Your task to perform on an android device: toggle show notifications on the lock screen Image 0: 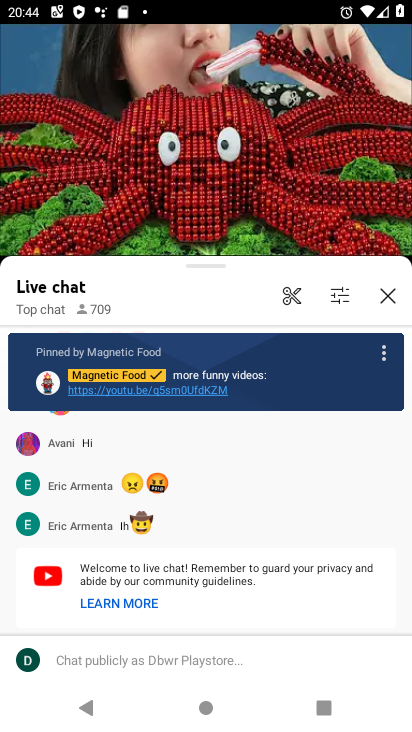
Step 0: press back button
Your task to perform on an android device: toggle show notifications on the lock screen Image 1: 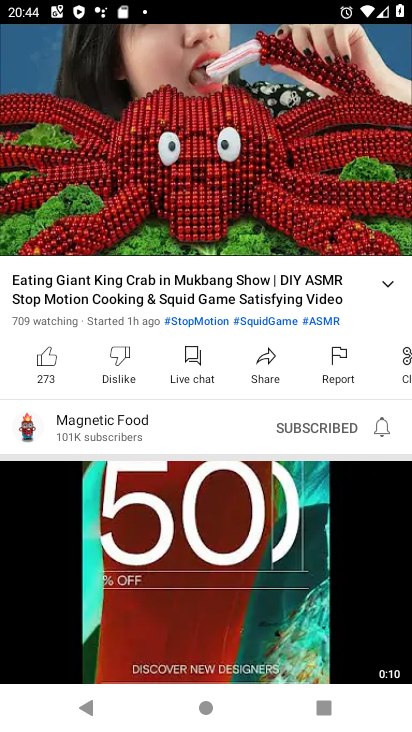
Step 1: press back button
Your task to perform on an android device: toggle show notifications on the lock screen Image 2: 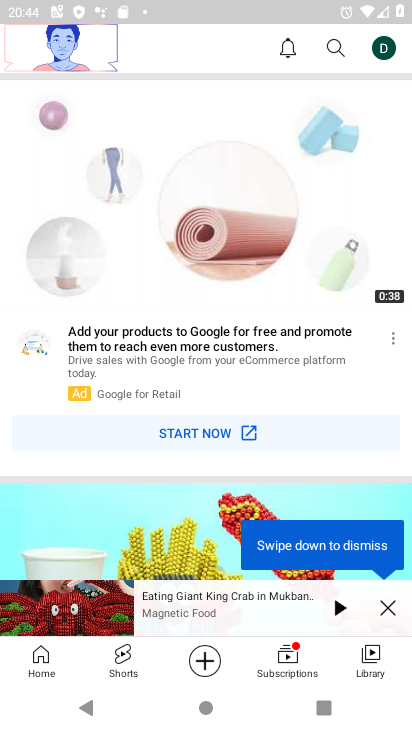
Step 2: press back button
Your task to perform on an android device: toggle show notifications on the lock screen Image 3: 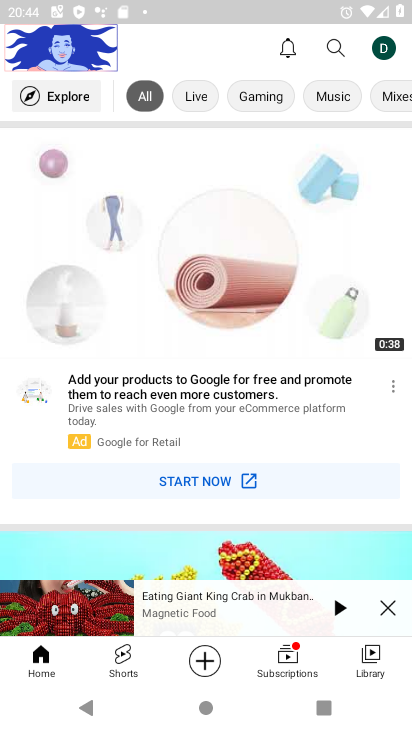
Step 3: press back button
Your task to perform on an android device: toggle show notifications on the lock screen Image 4: 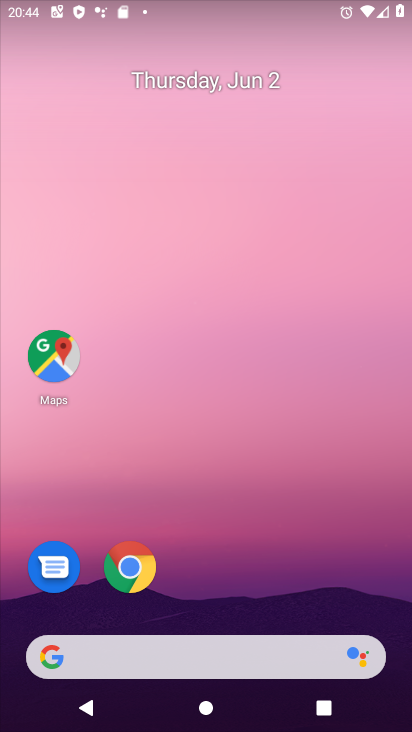
Step 4: drag from (276, 566) to (223, 112)
Your task to perform on an android device: toggle show notifications on the lock screen Image 5: 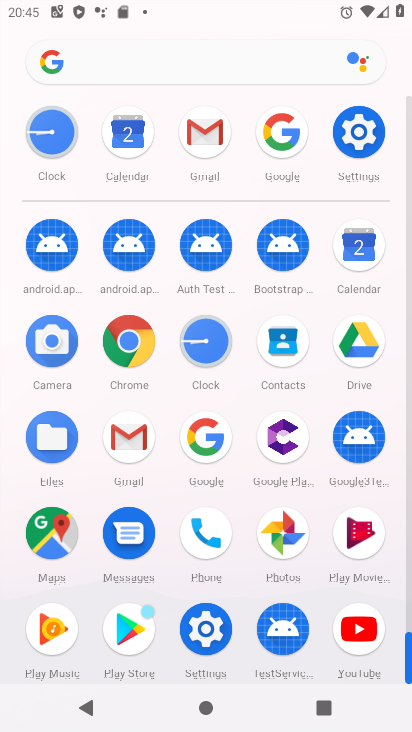
Step 5: click (356, 131)
Your task to perform on an android device: toggle show notifications on the lock screen Image 6: 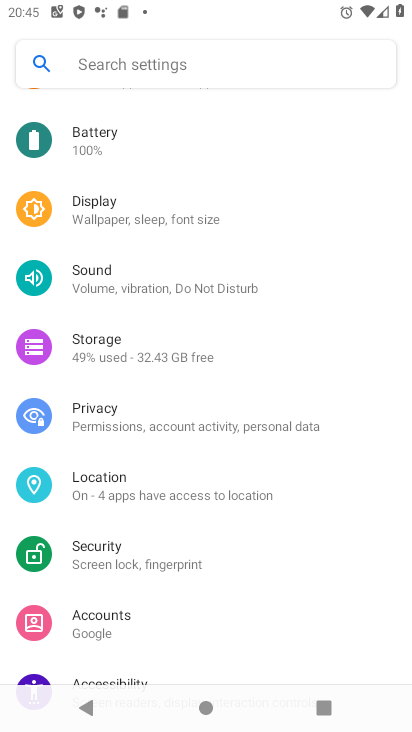
Step 6: drag from (204, 202) to (186, 267)
Your task to perform on an android device: toggle show notifications on the lock screen Image 7: 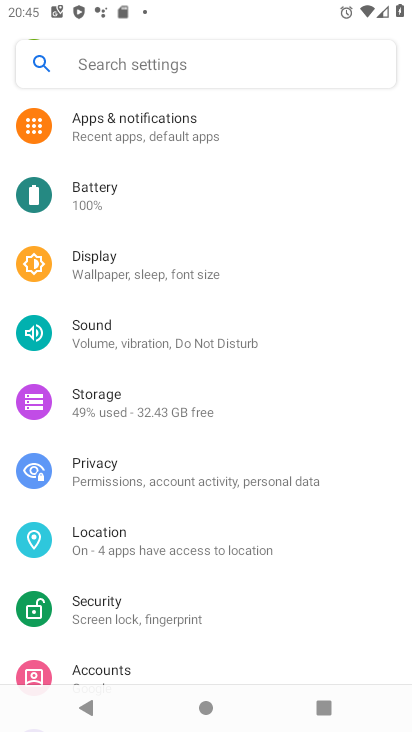
Step 7: drag from (221, 195) to (223, 312)
Your task to perform on an android device: toggle show notifications on the lock screen Image 8: 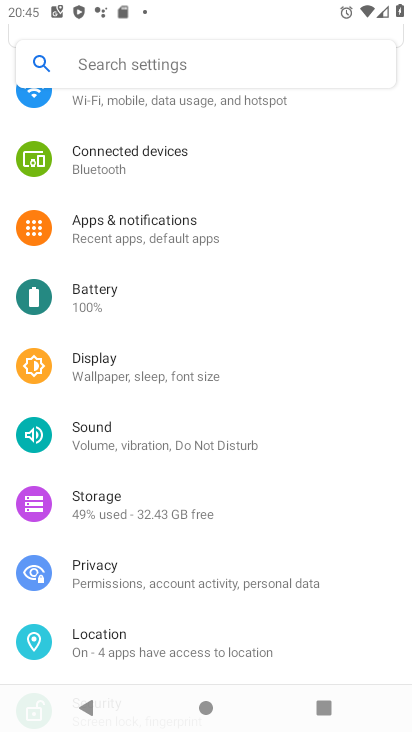
Step 8: click (167, 248)
Your task to perform on an android device: toggle show notifications on the lock screen Image 9: 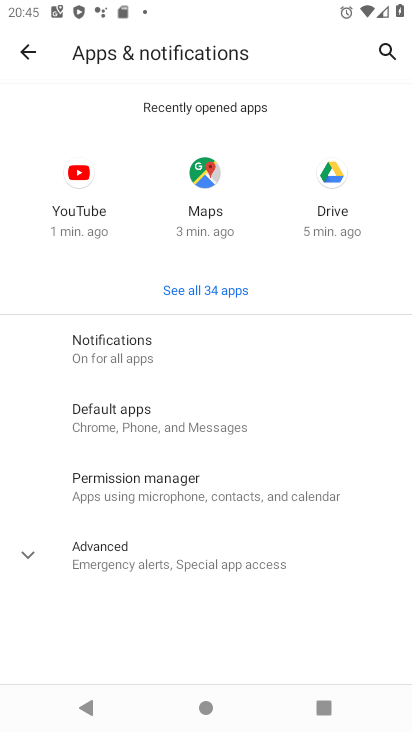
Step 9: click (117, 348)
Your task to perform on an android device: toggle show notifications on the lock screen Image 10: 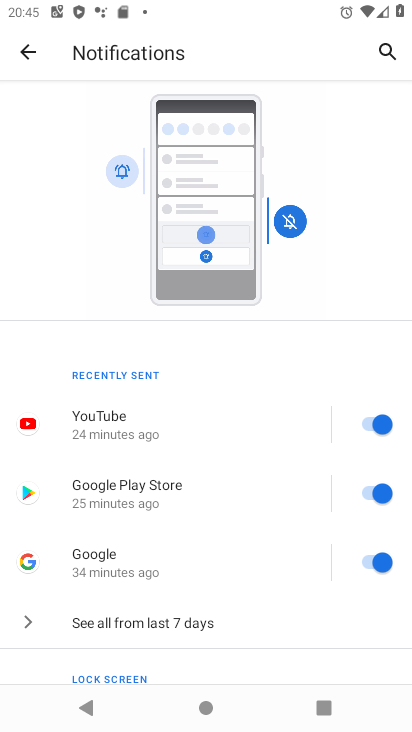
Step 10: drag from (192, 587) to (237, 433)
Your task to perform on an android device: toggle show notifications on the lock screen Image 11: 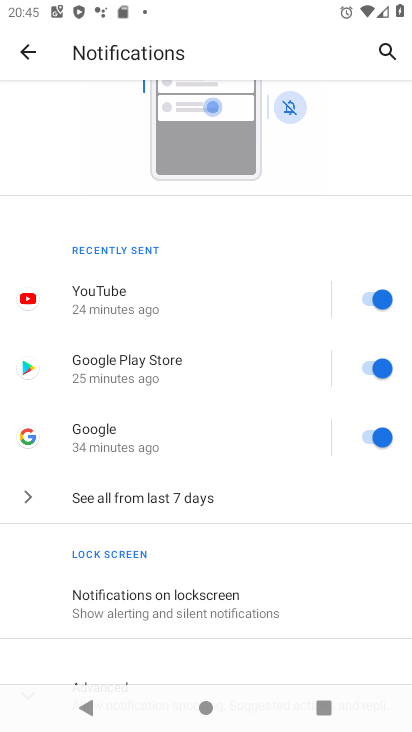
Step 11: drag from (218, 555) to (264, 453)
Your task to perform on an android device: toggle show notifications on the lock screen Image 12: 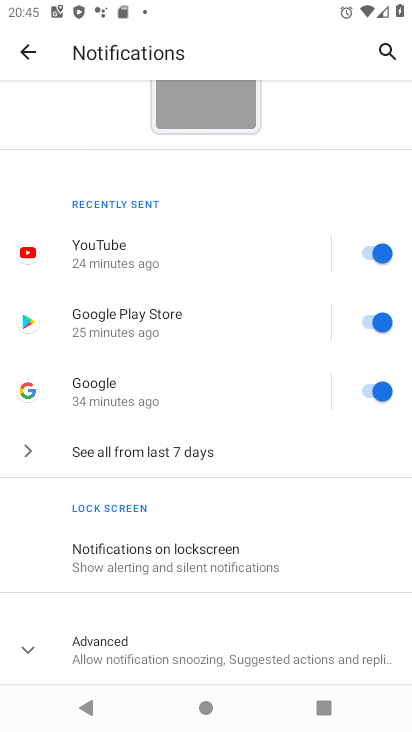
Step 12: click (221, 554)
Your task to perform on an android device: toggle show notifications on the lock screen Image 13: 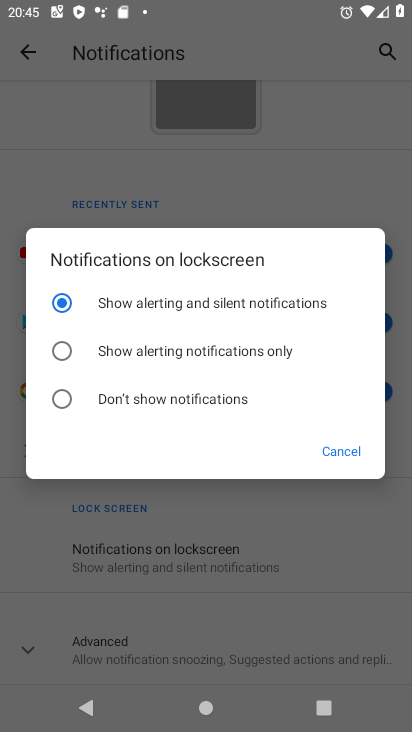
Step 13: click (55, 392)
Your task to perform on an android device: toggle show notifications on the lock screen Image 14: 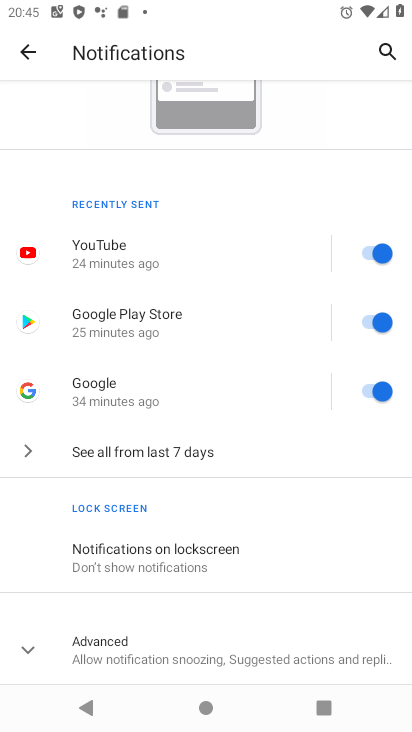
Step 14: task complete